Your task to perform on an android device: all mails in gmail Image 0: 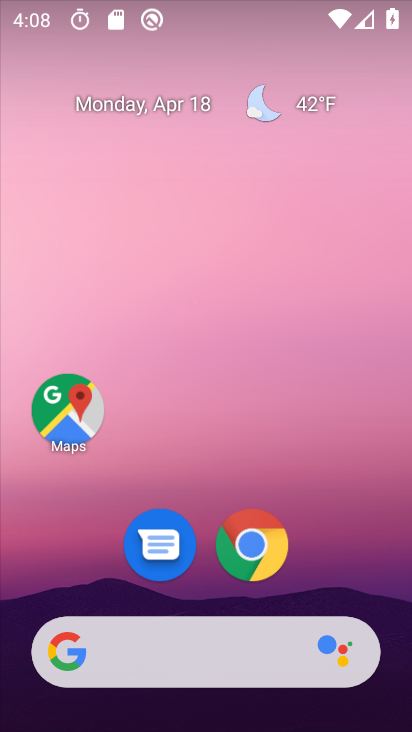
Step 0: drag from (312, 292) to (313, 105)
Your task to perform on an android device: all mails in gmail Image 1: 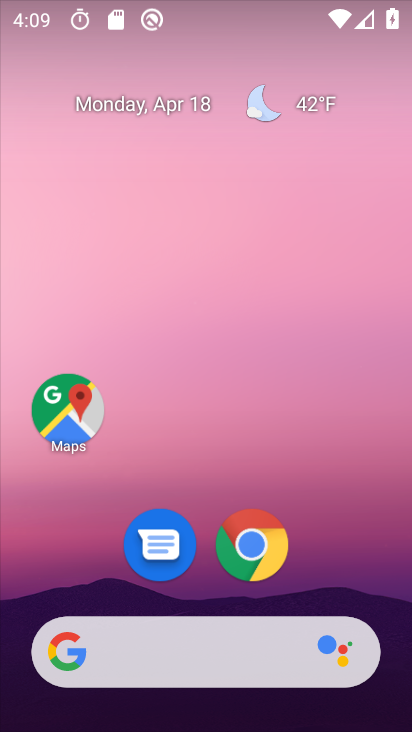
Step 1: drag from (337, 527) to (348, 77)
Your task to perform on an android device: all mails in gmail Image 2: 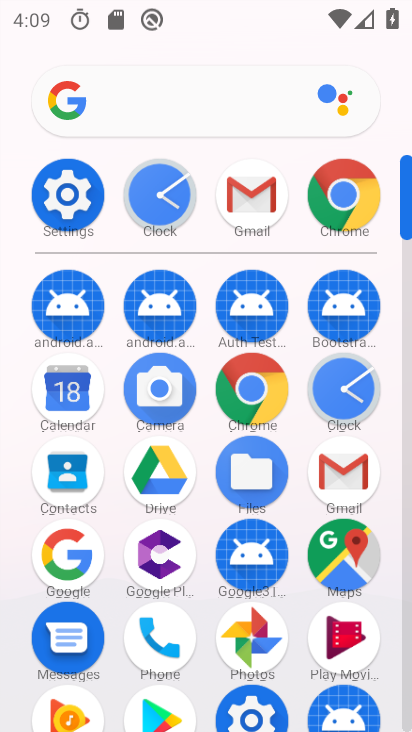
Step 2: click (346, 473)
Your task to perform on an android device: all mails in gmail Image 3: 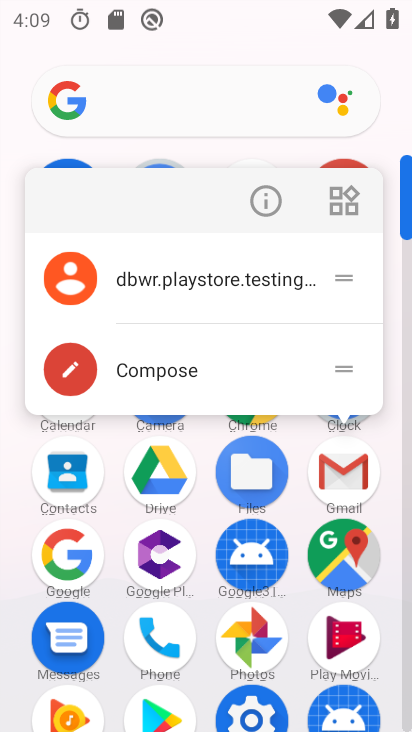
Step 3: click (346, 473)
Your task to perform on an android device: all mails in gmail Image 4: 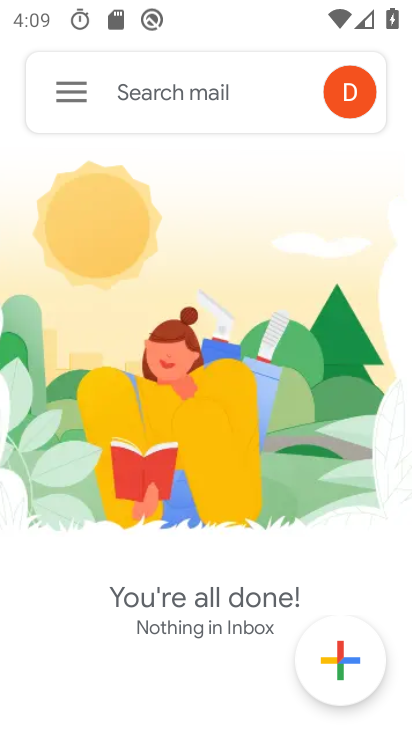
Step 4: click (74, 88)
Your task to perform on an android device: all mails in gmail Image 5: 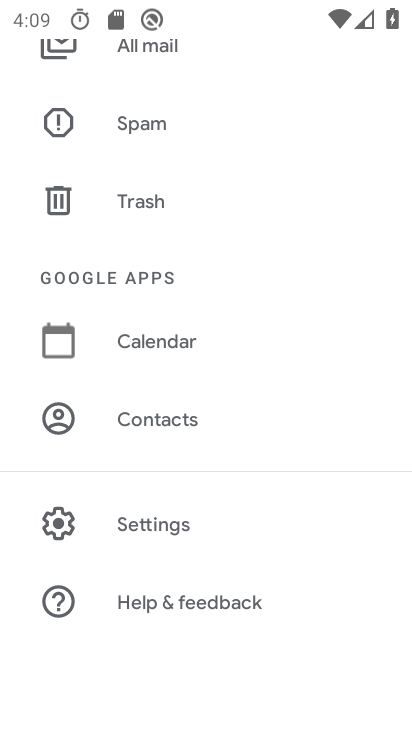
Step 5: drag from (310, 295) to (309, 395)
Your task to perform on an android device: all mails in gmail Image 6: 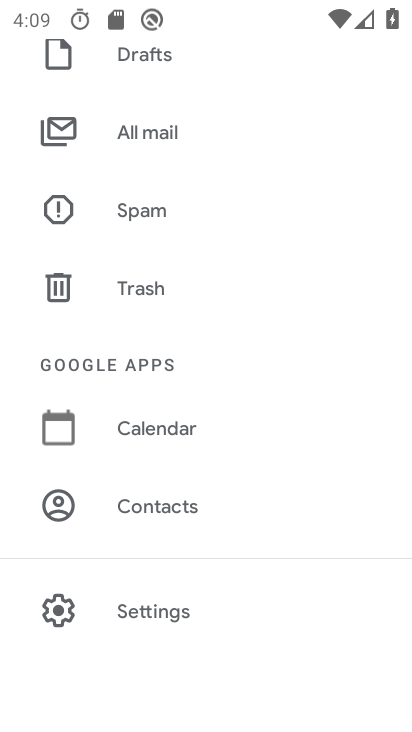
Step 6: drag from (321, 221) to (328, 396)
Your task to perform on an android device: all mails in gmail Image 7: 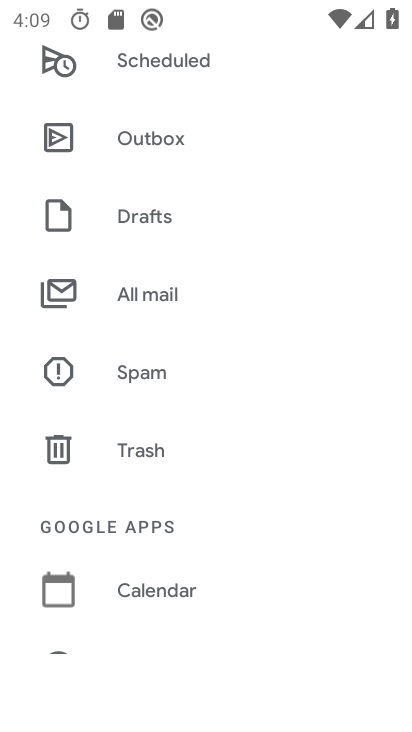
Step 7: drag from (315, 224) to (312, 419)
Your task to perform on an android device: all mails in gmail Image 8: 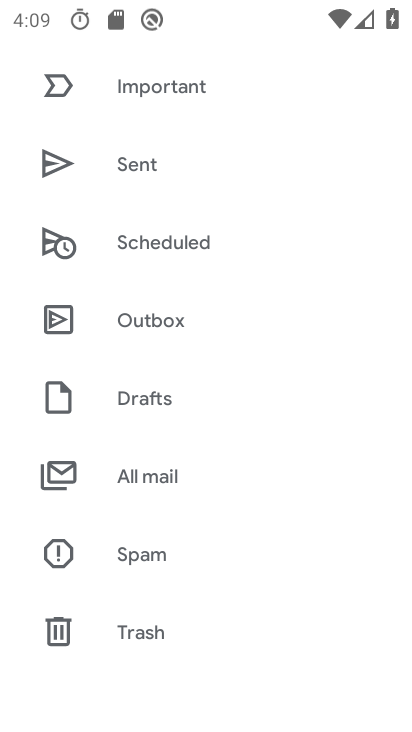
Step 8: click (163, 481)
Your task to perform on an android device: all mails in gmail Image 9: 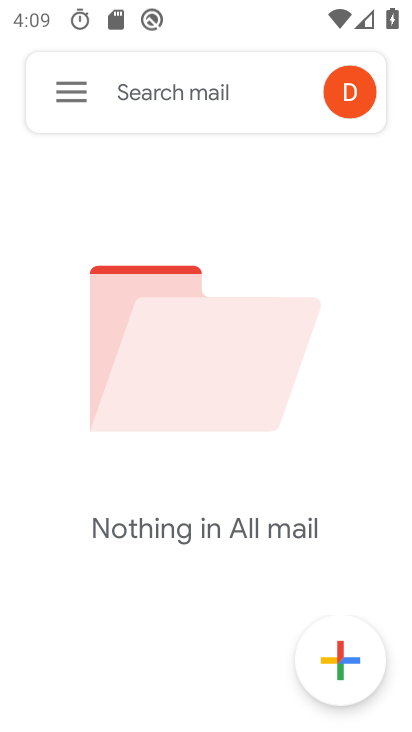
Step 9: task complete